Your task to perform on an android device: Open battery settings Image 0: 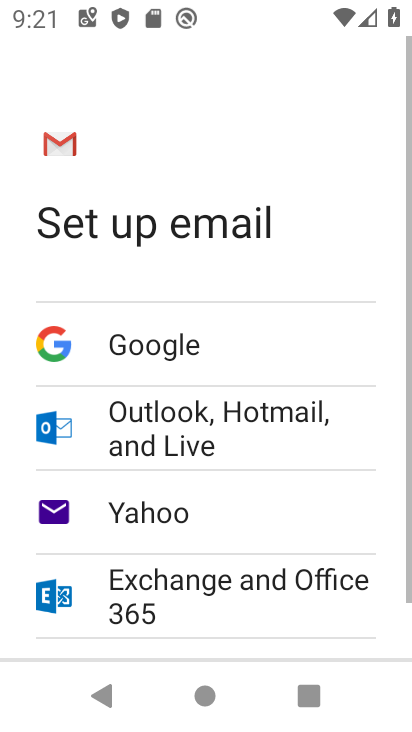
Step 0: press home button
Your task to perform on an android device: Open battery settings Image 1: 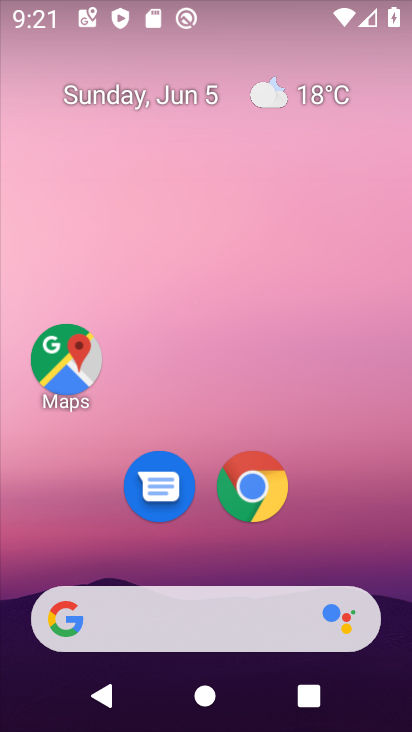
Step 1: drag from (373, 536) to (368, 208)
Your task to perform on an android device: Open battery settings Image 2: 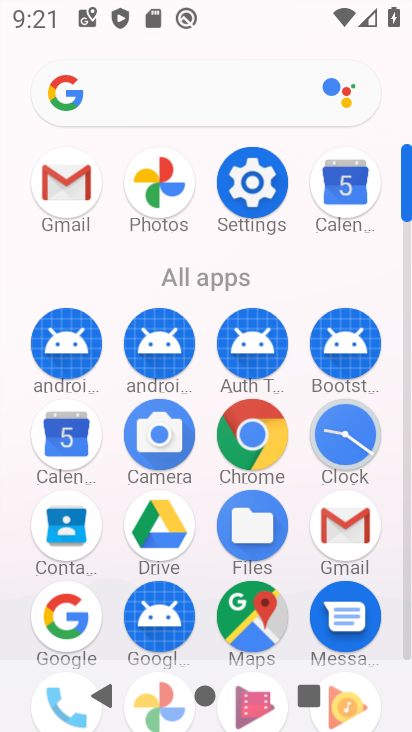
Step 2: click (272, 188)
Your task to perform on an android device: Open battery settings Image 3: 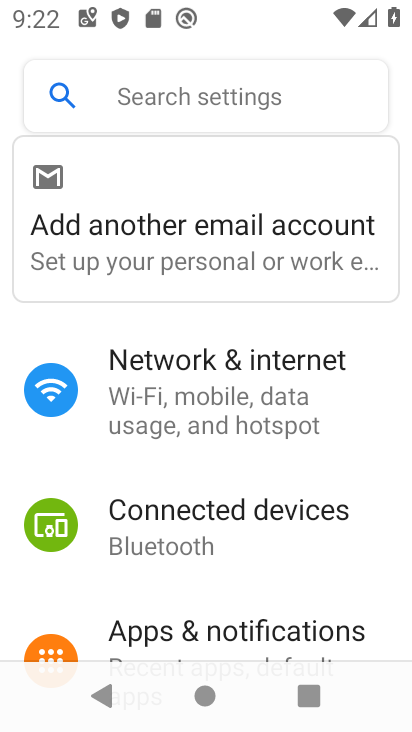
Step 3: drag from (306, 563) to (317, 273)
Your task to perform on an android device: Open battery settings Image 4: 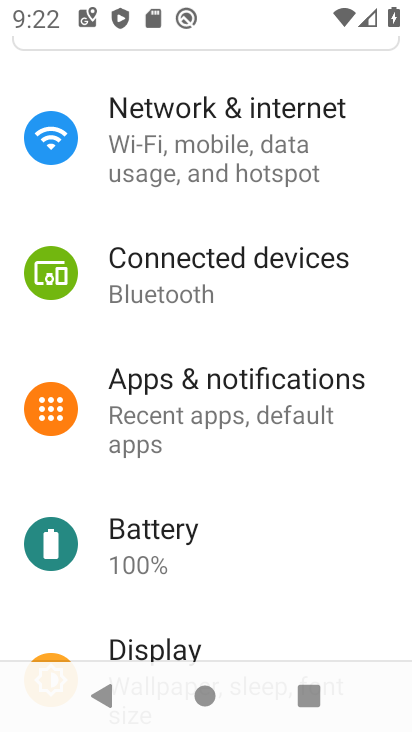
Step 4: click (173, 520)
Your task to perform on an android device: Open battery settings Image 5: 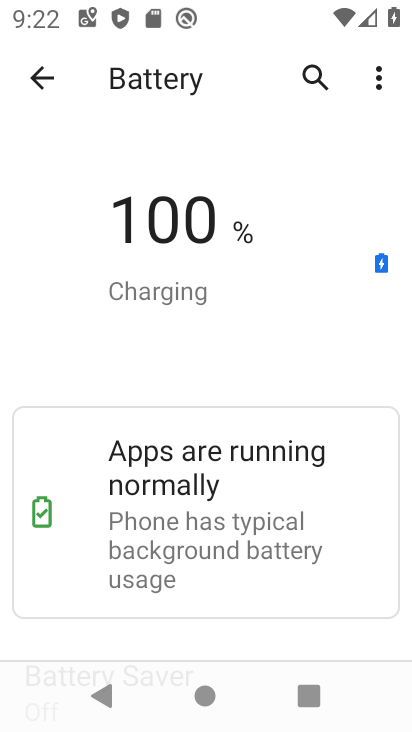
Step 5: task complete